Your task to perform on an android device: open sync settings in chrome Image 0: 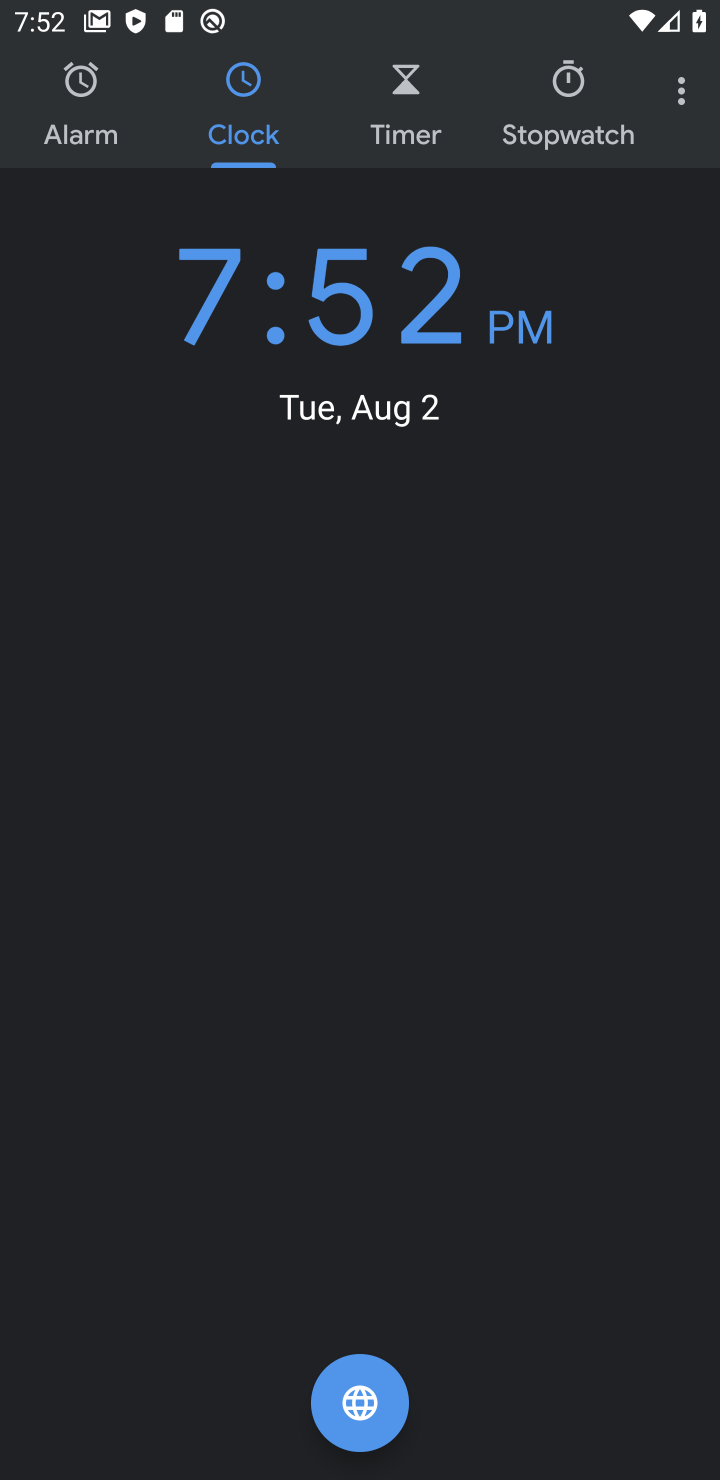
Step 0: press home button
Your task to perform on an android device: open sync settings in chrome Image 1: 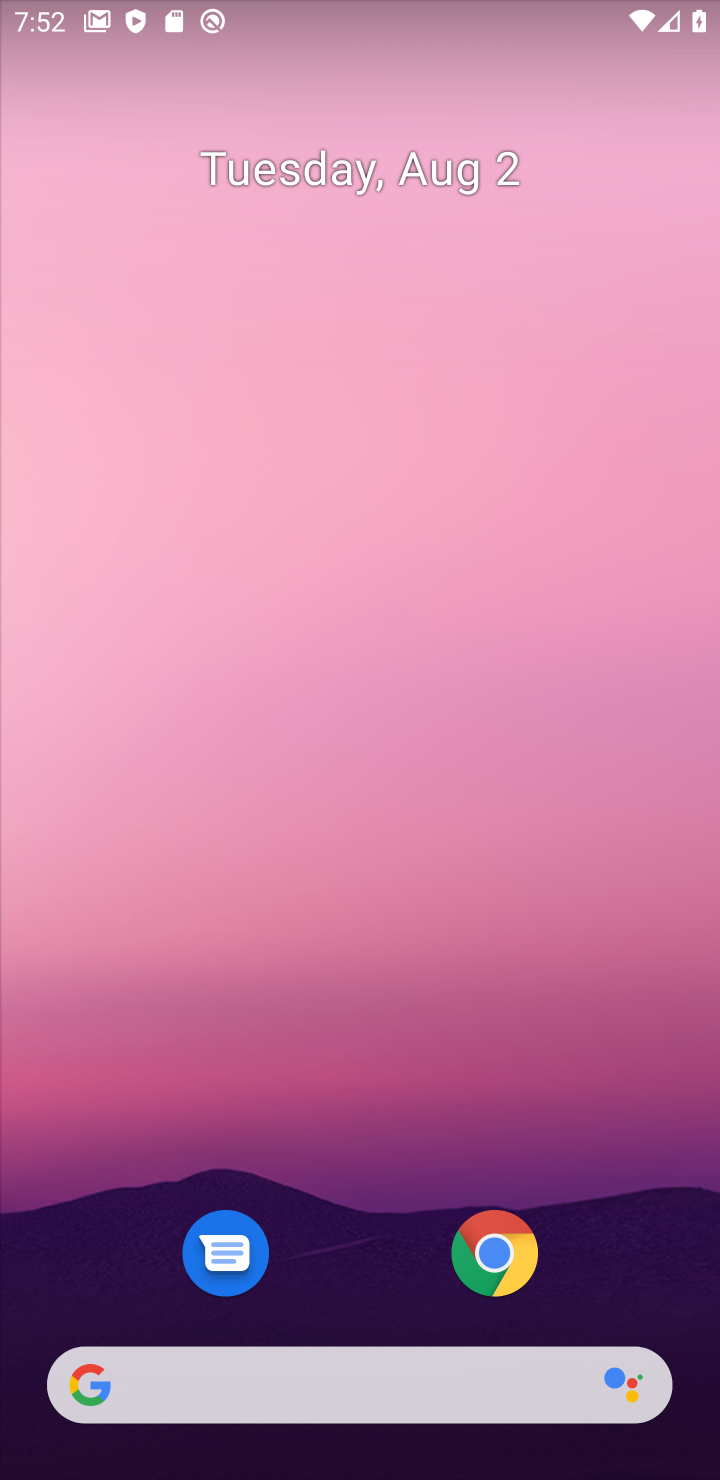
Step 1: press home button
Your task to perform on an android device: open sync settings in chrome Image 2: 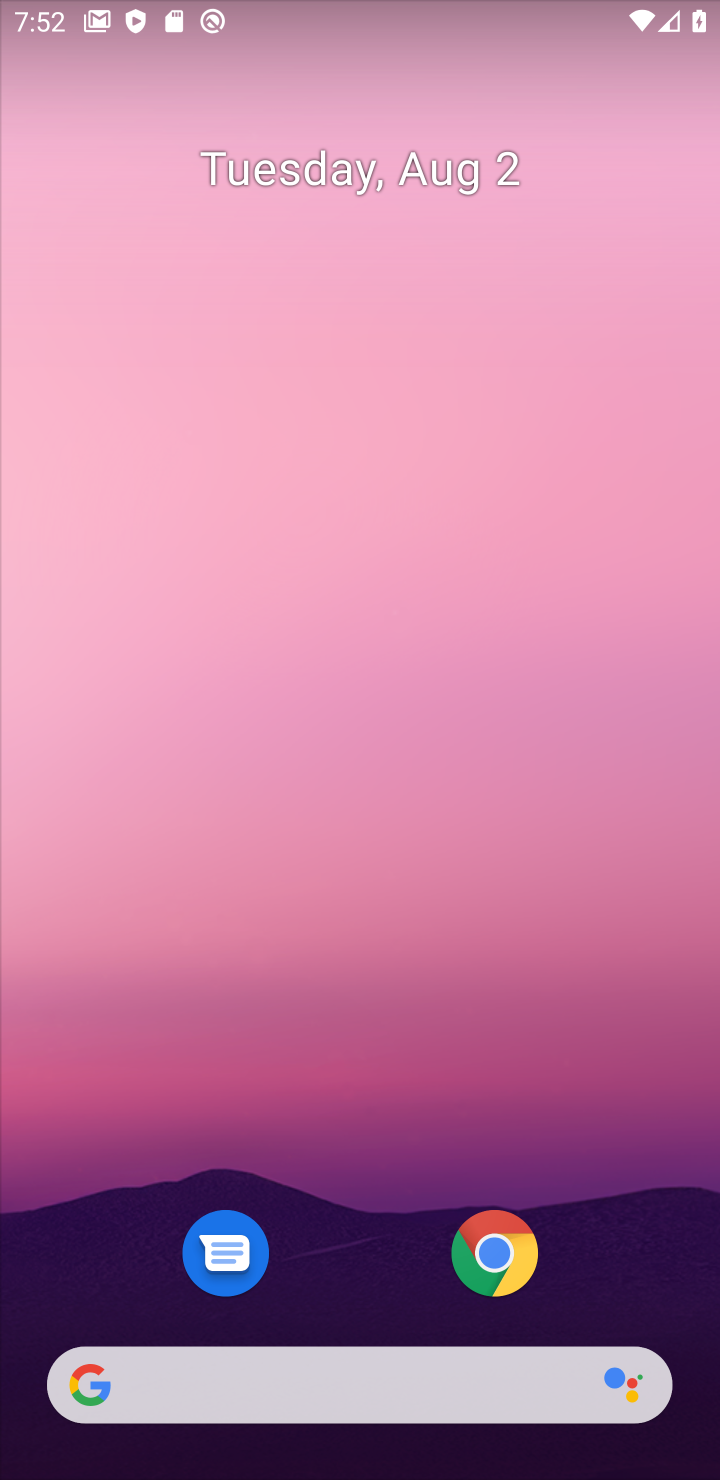
Step 2: click (493, 1271)
Your task to perform on an android device: open sync settings in chrome Image 3: 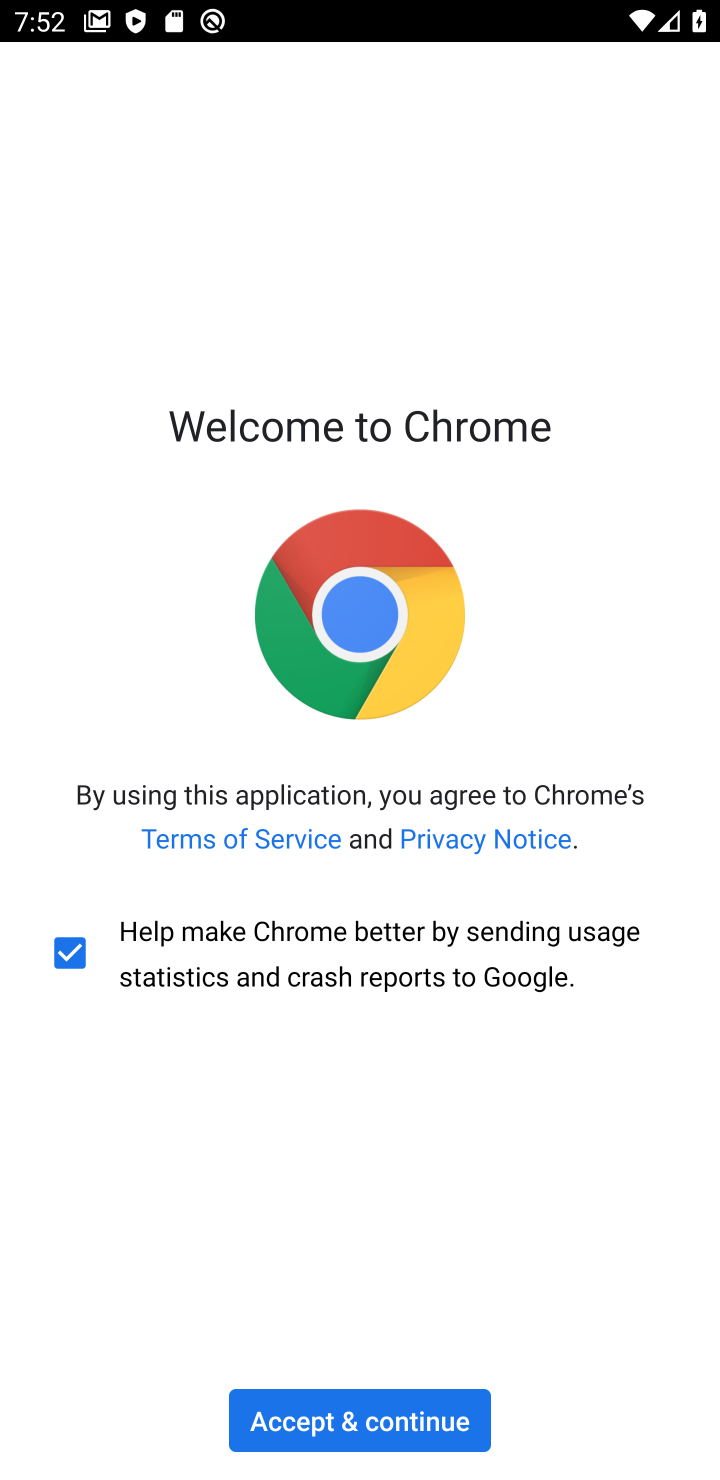
Step 3: click (387, 1423)
Your task to perform on an android device: open sync settings in chrome Image 4: 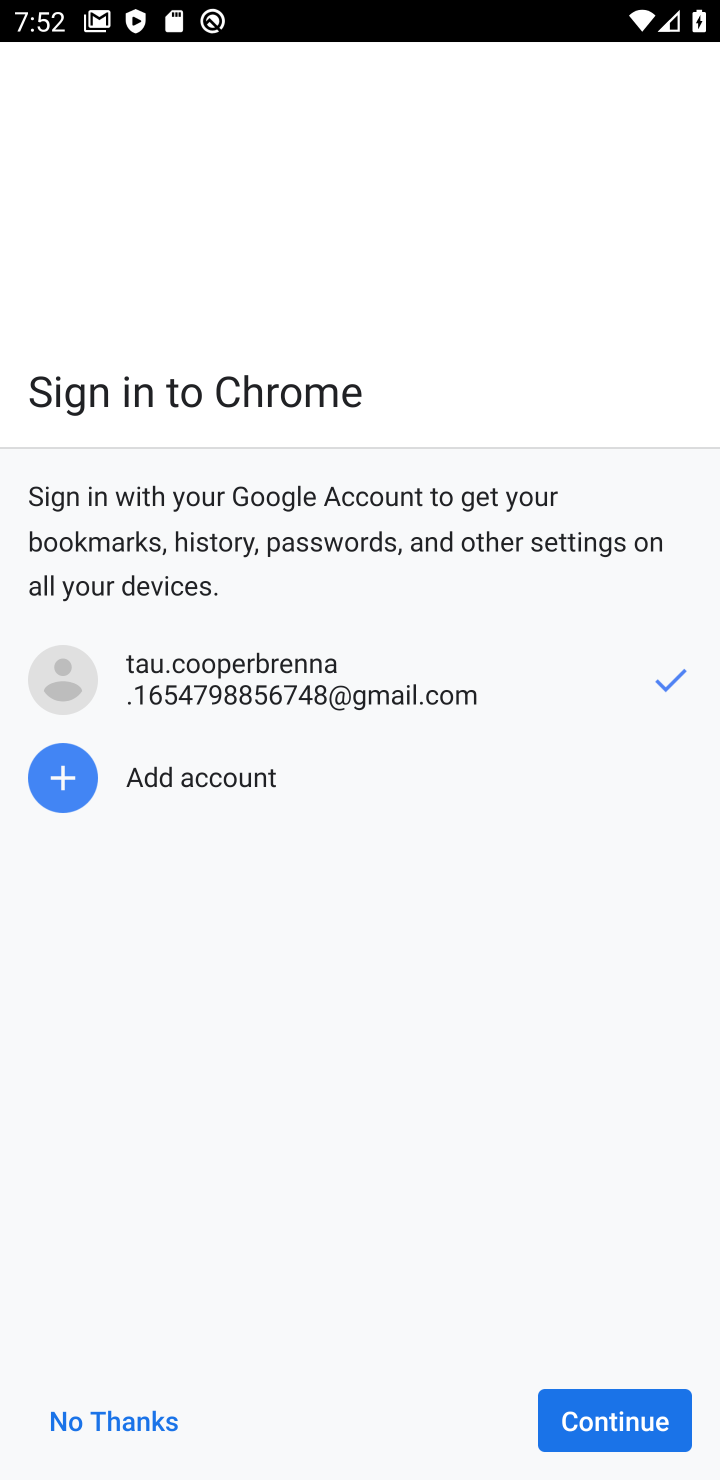
Step 4: click (605, 1430)
Your task to perform on an android device: open sync settings in chrome Image 5: 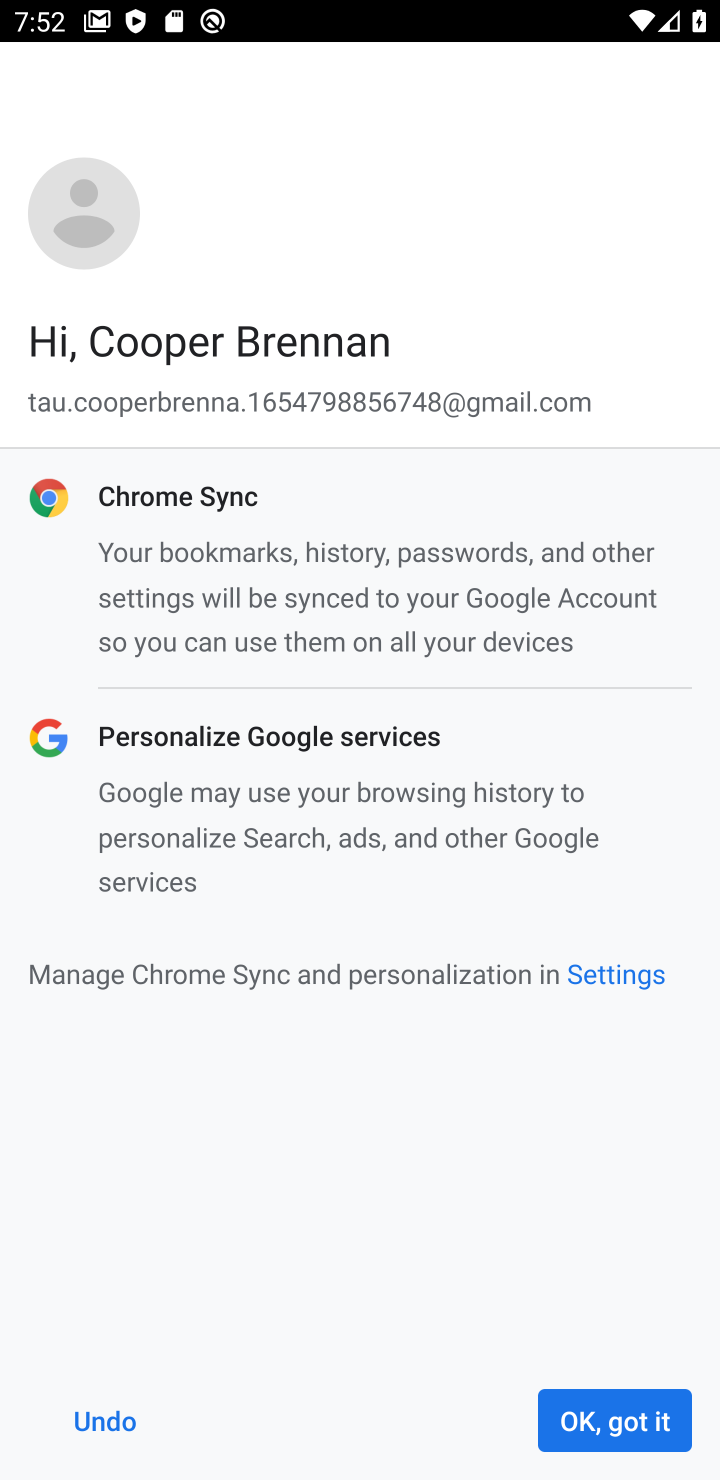
Step 5: click (614, 1424)
Your task to perform on an android device: open sync settings in chrome Image 6: 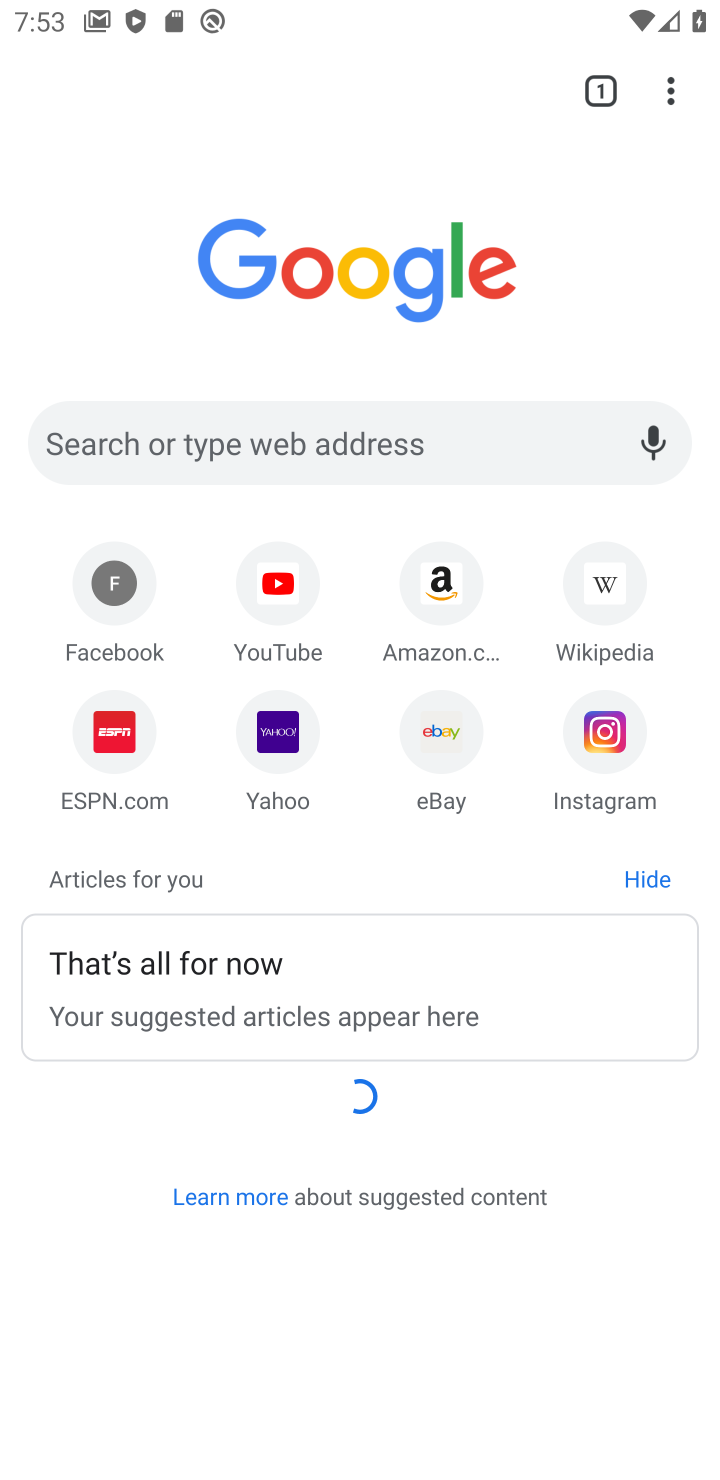
Step 6: drag from (676, 87) to (383, 879)
Your task to perform on an android device: open sync settings in chrome Image 7: 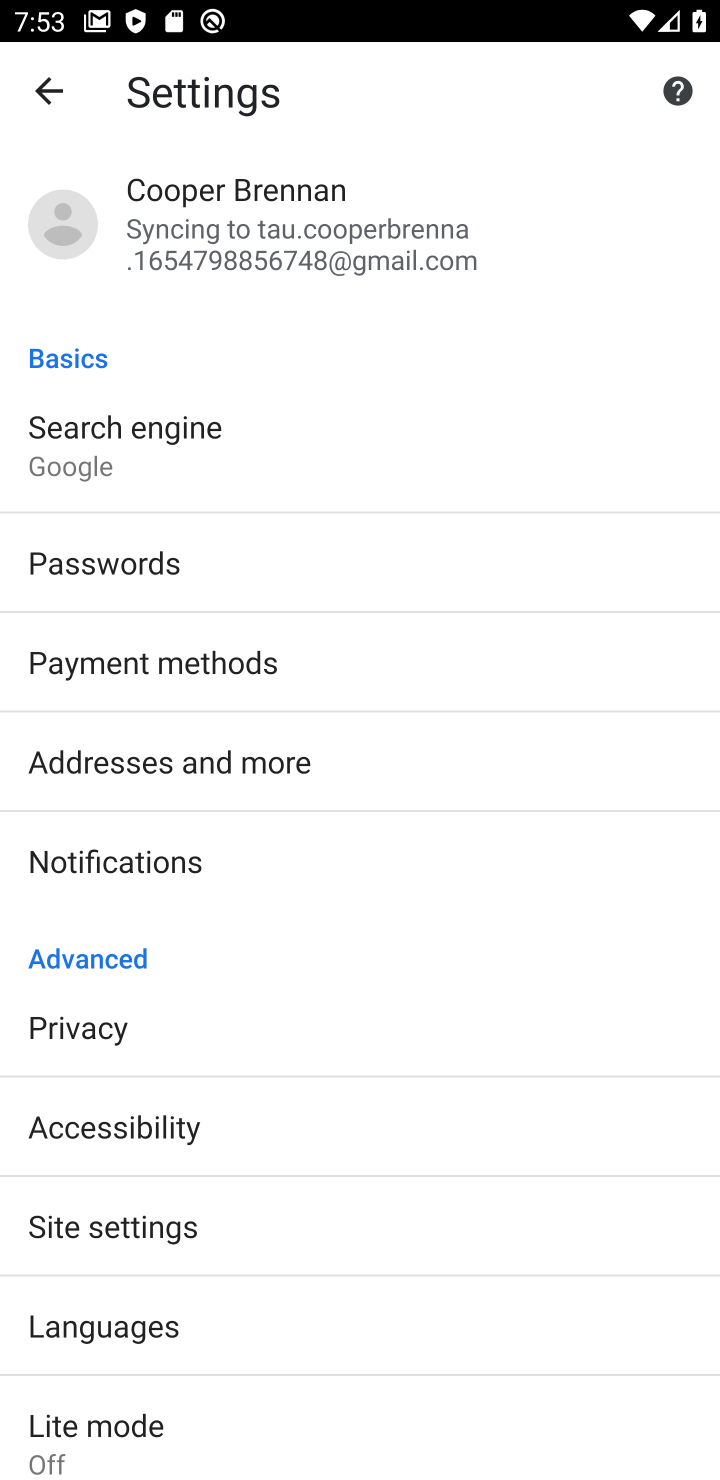
Step 7: click (317, 253)
Your task to perform on an android device: open sync settings in chrome Image 8: 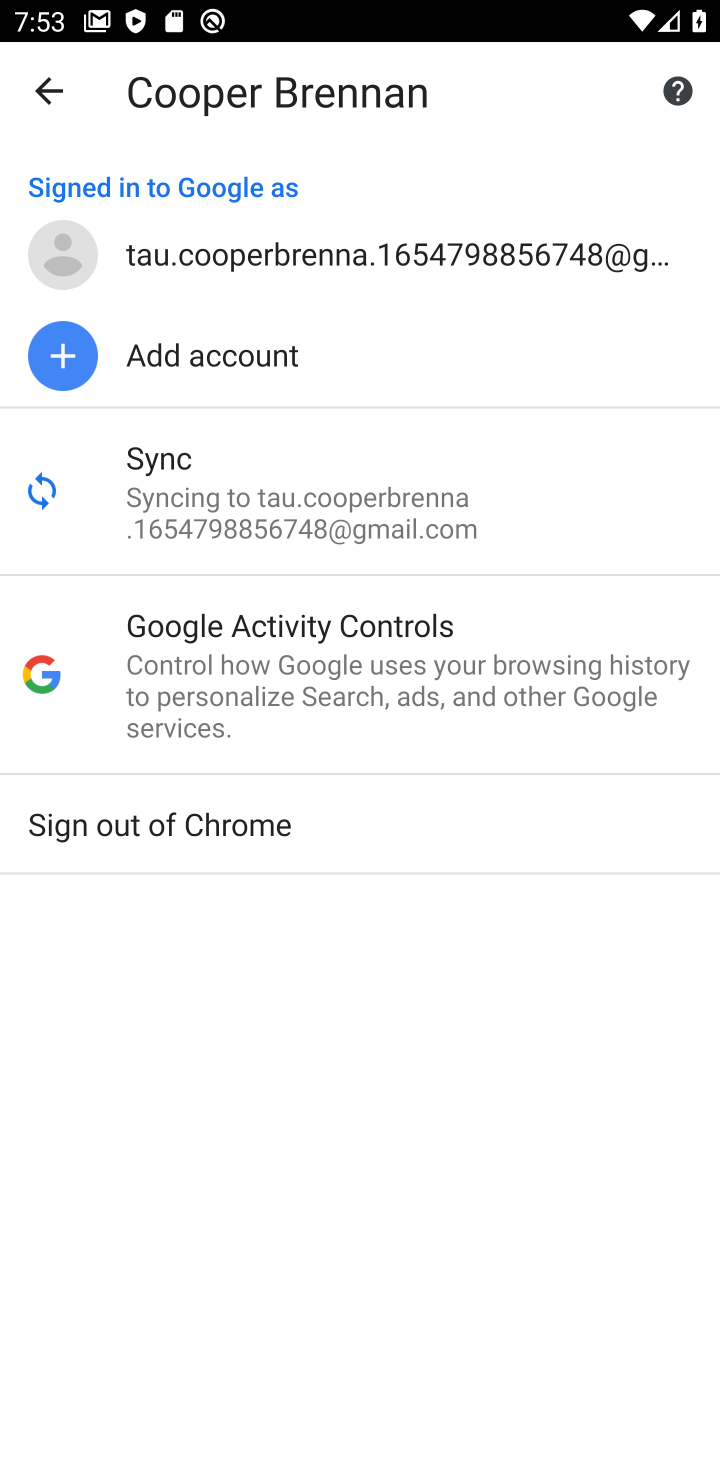
Step 8: click (314, 481)
Your task to perform on an android device: open sync settings in chrome Image 9: 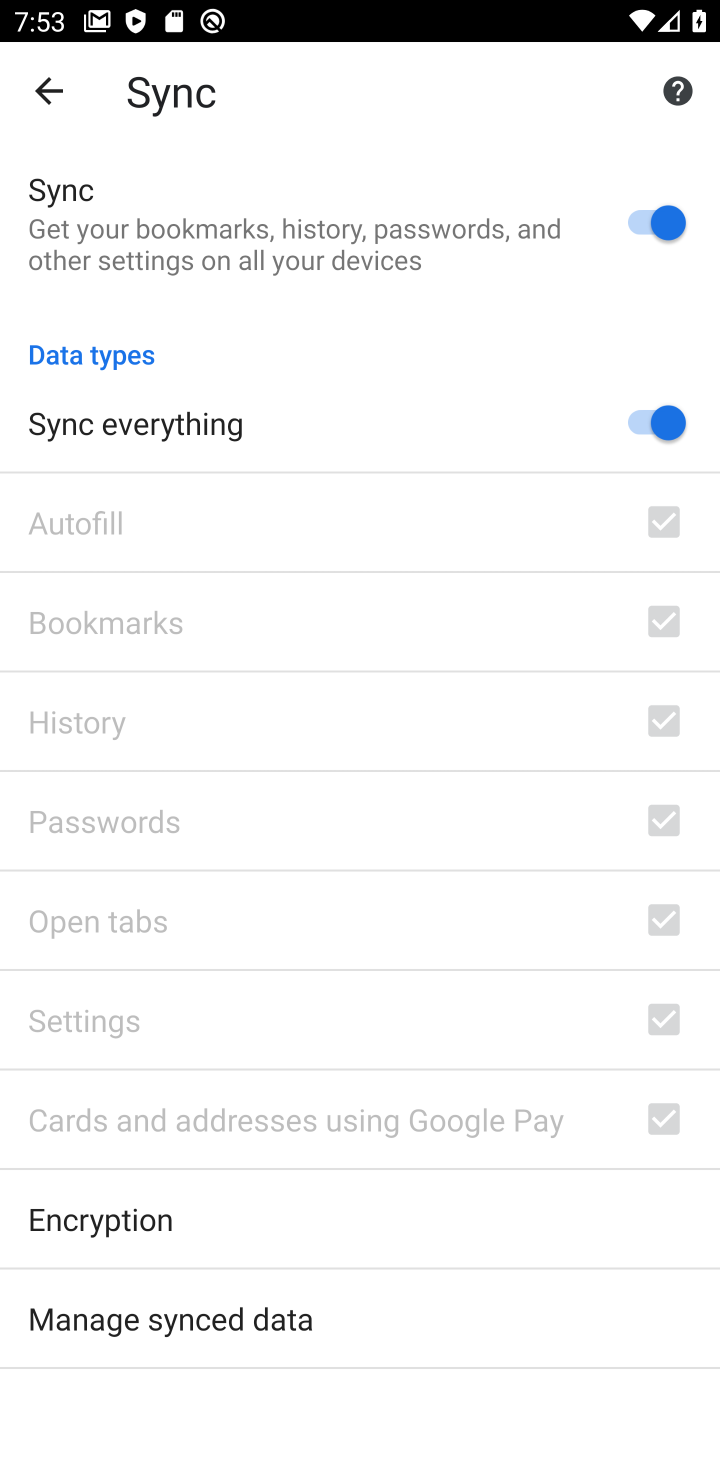
Step 9: task complete